Your task to perform on an android device: Open Youtube and go to "Your channel" Image 0: 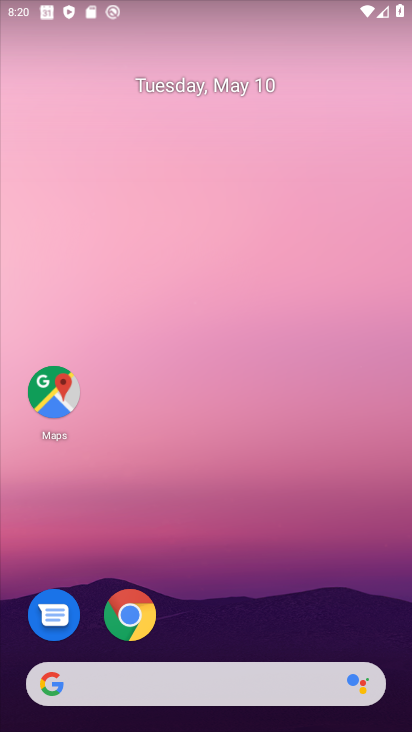
Step 0: drag from (212, 604) to (246, 13)
Your task to perform on an android device: Open Youtube and go to "Your channel" Image 1: 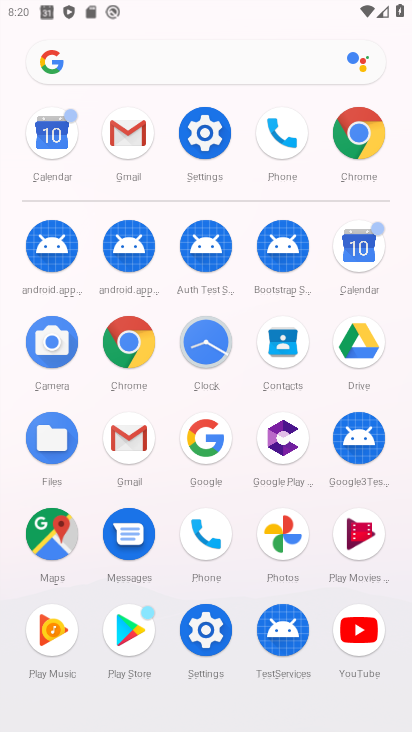
Step 1: click (356, 627)
Your task to perform on an android device: Open Youtube and go to "Your channel" Image 2: 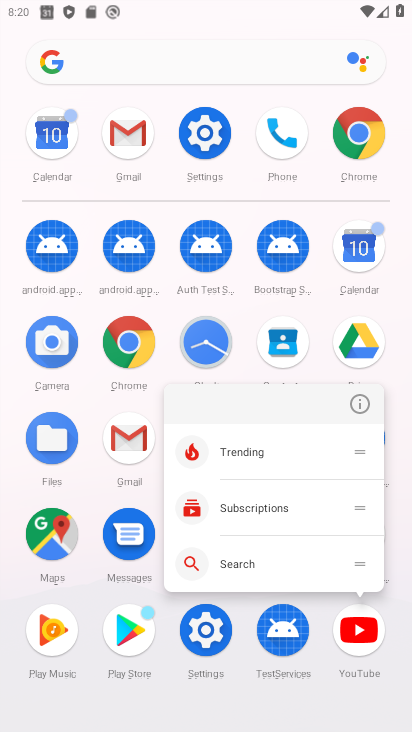
Step 2: click (349, 397)
Your task to perform on an android device: Open Youtube and go to "Your channel" Image 3: 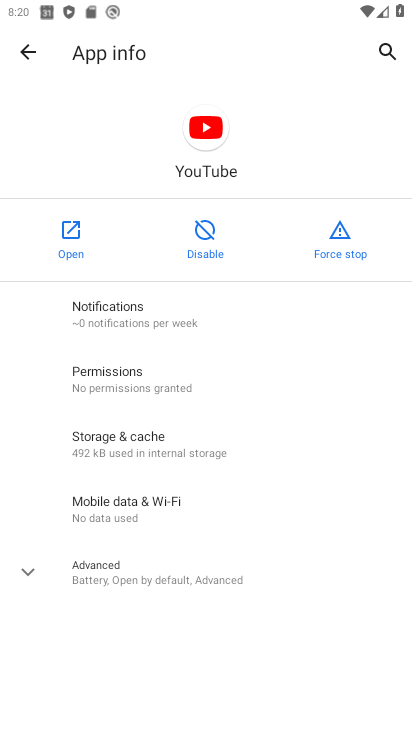
Step 3: click (81, 251)
Your task to perform on an android device: Open Youtube and go to "Your channel" Image 4: 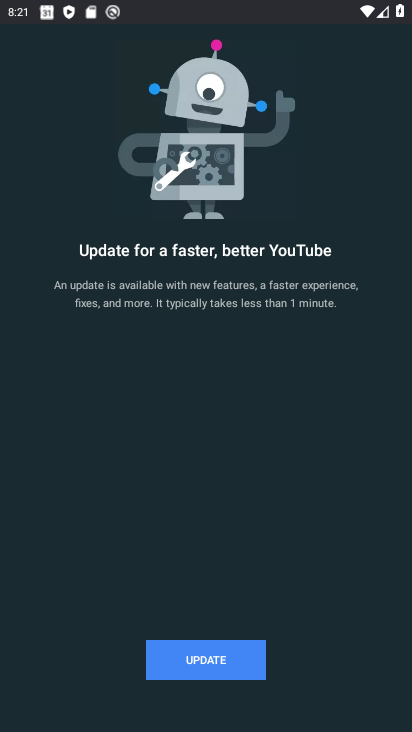
Step 4: click (341, 585)
Your task to perform on an android device: Open Youtube and go to "Your channel" Image 5: 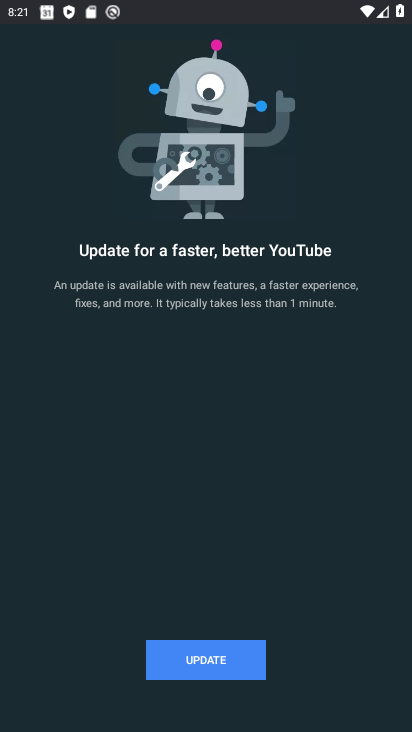
Step 5: task complete